Your task to perform on an android device: Open my contact list Image 0: 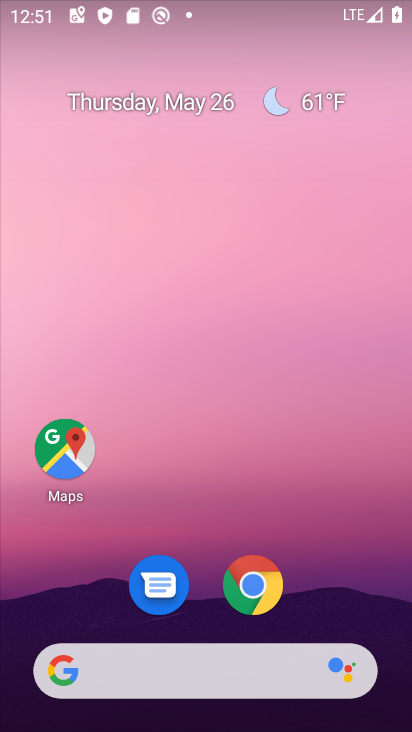
Step 0: drag from (236, 445) to (283, 67)
Your task to perform on an android device: Open my contact list Image 1: 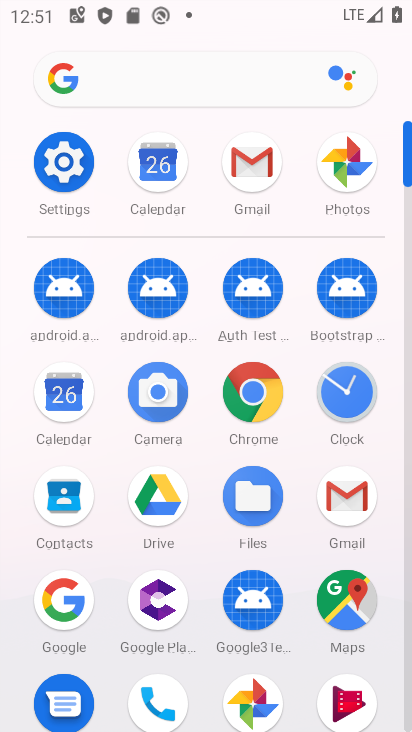
Step 1: click (62, 491)
Your task to perform on an android device: Open my contact list Image 2: 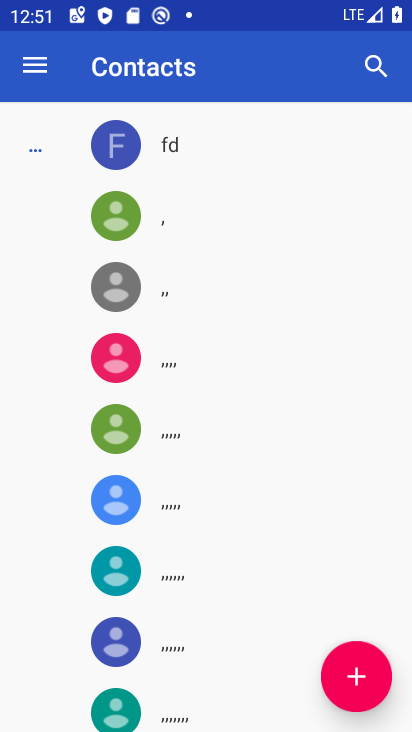
Step 2: task complete